Your task to perform on an android device: Open privacy settings Image 0: 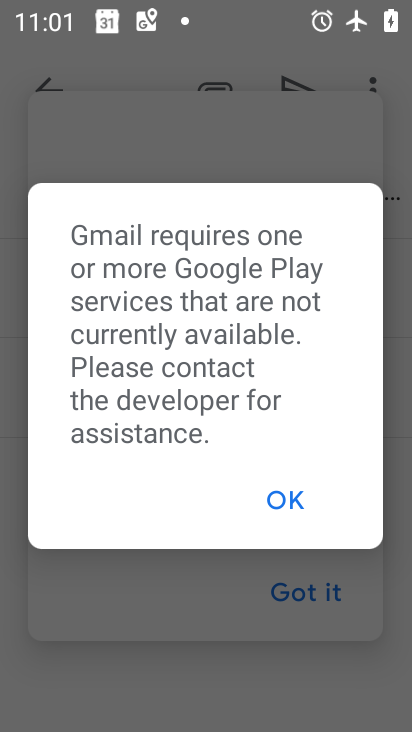
Step 0: press home button
Your task to perform on an android device: Open privacy settings Image 1: 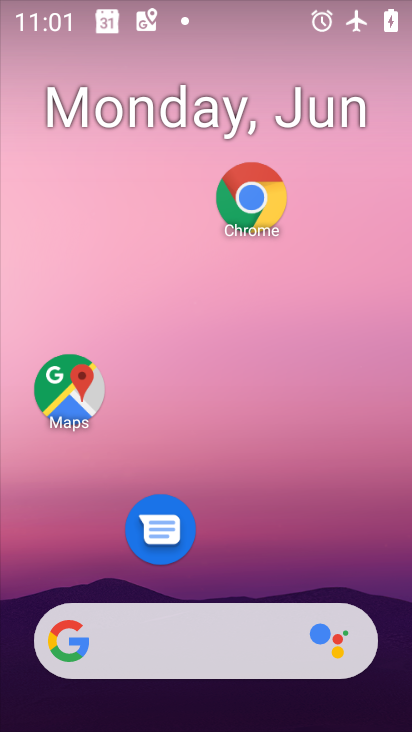
Step 1: drag from (227, 514) to (229, 69)
Your task to perform on an android device: Open privacy settings Image 2: 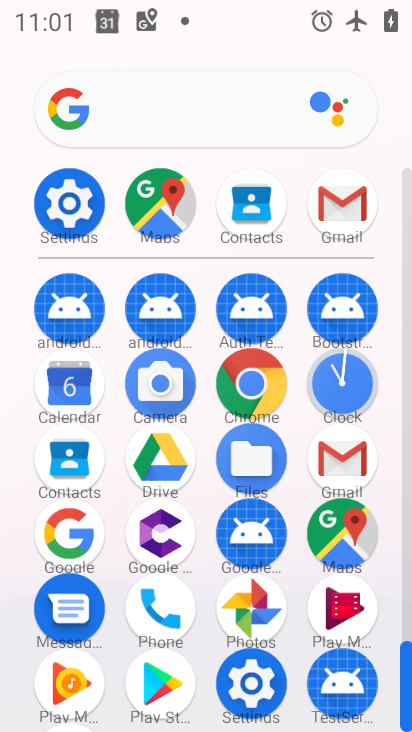
Step 2: click (81, 235)
Your task to perform on an android device: Open privacy settings Image 3: 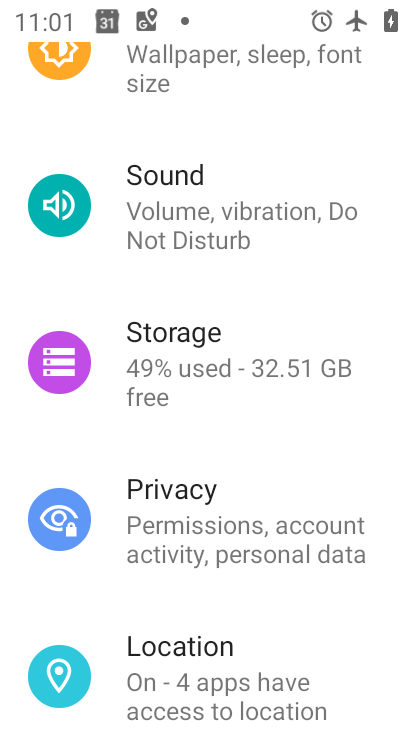
Step 3: click (218, 493)
Your task to perform on an android device: Open privacy settings Image 4: 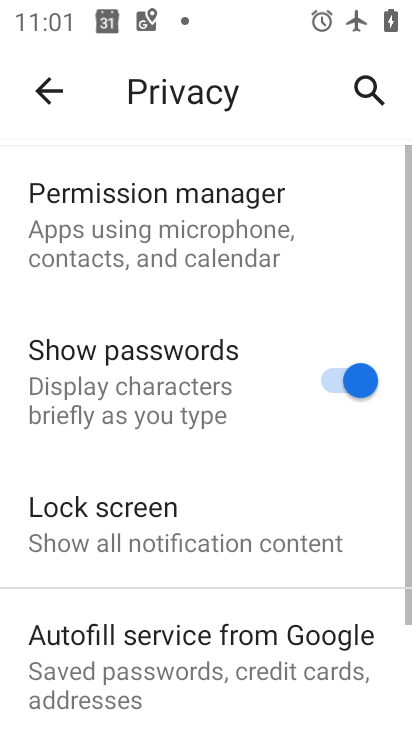
Step 4: task complete